Your task to perform on an android device: Search for Italian restaurants on Maps Image 0: 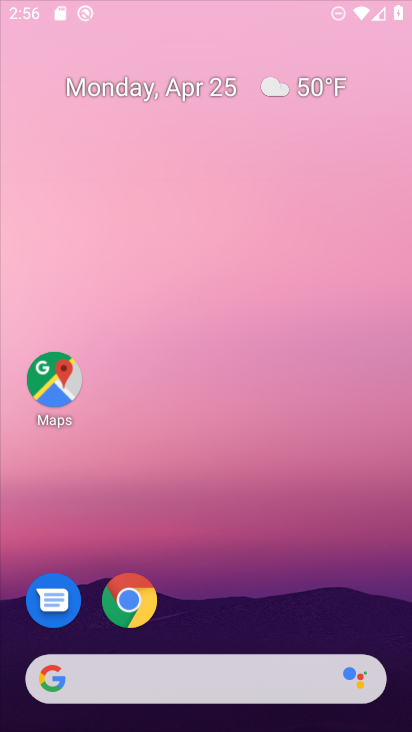
Step 0: click (259, 65)
Your task to perform on an android device: Search for Italian restaurants on Maps Image 1: 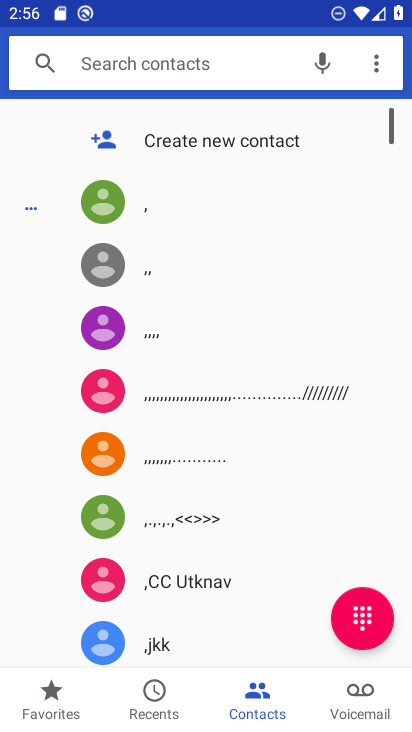
Step 1: press home button
Your task to perform on an android device: Search for Italian restaurants on Maps Image 2: 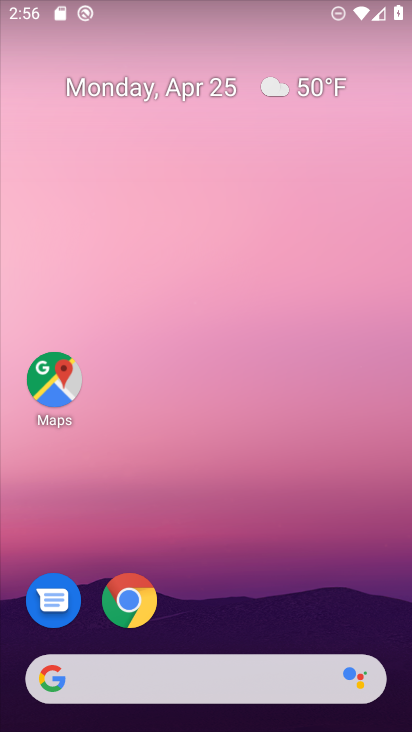
Step 2: drag from (210, 640) to (175, 105)
Your task to perform on an android device: Search for Italian restaurants on Maps Image 3: 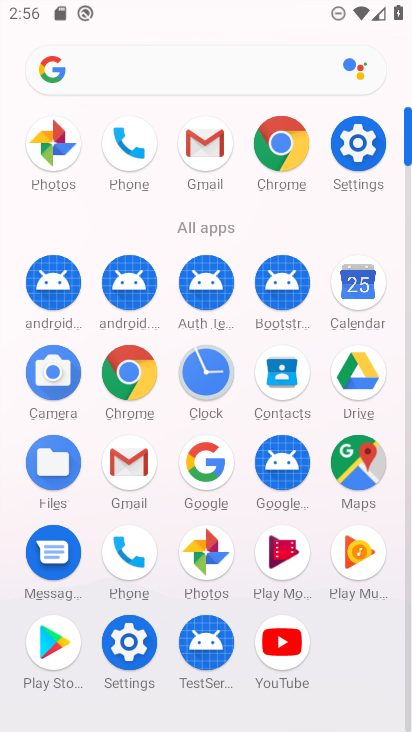
Step 3: click (349, 454)
Your task to perform on an android device: Search for Italian restaurants on Maps Image 4: 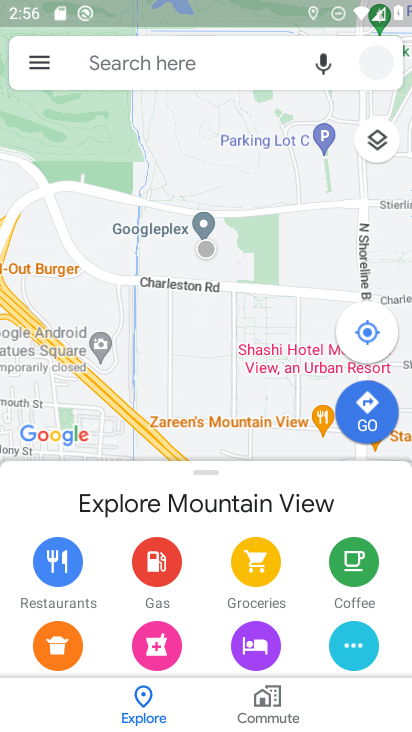
Step 4: click (137, 81)
Your task to perform on an android device: Search for Italian restaurants on Maps Image 5: 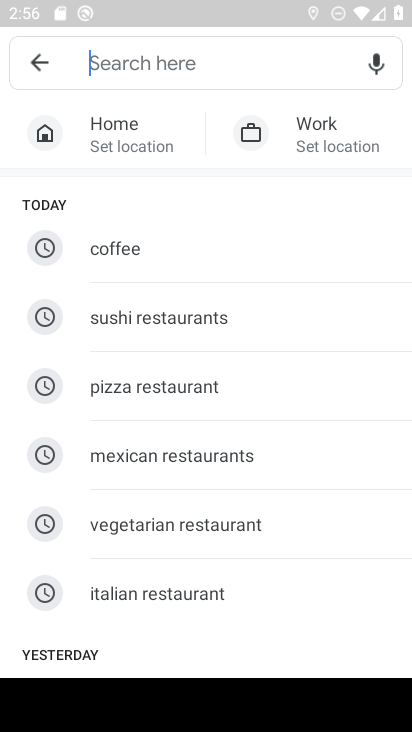
Step 5: click (159, 605)
Your task to perform on an android device: Search for Italian restaurants on Maps Image 6: 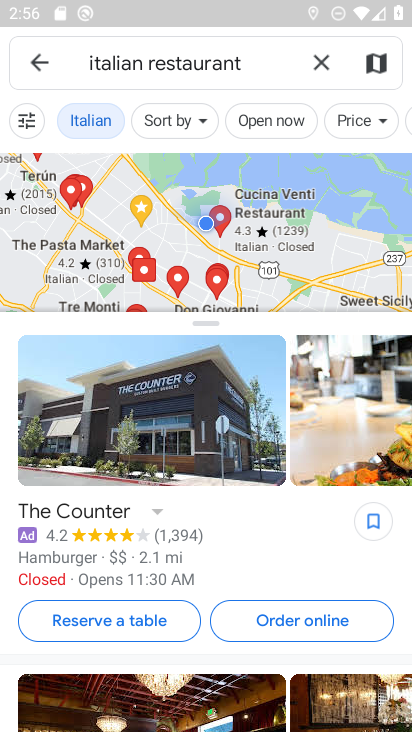
Step 6: task complete